Your task to perform on an android device: Show me popular games on the Play Store Image 0: 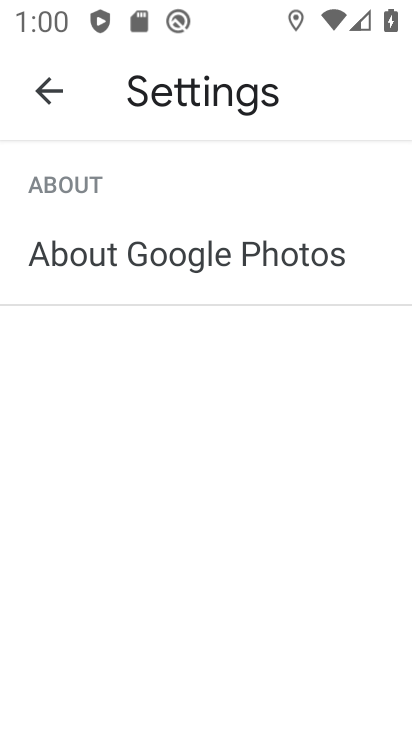
Step 0: press home button
Your task to perform on an android device: Show me popular games on the Play Store Image 1: 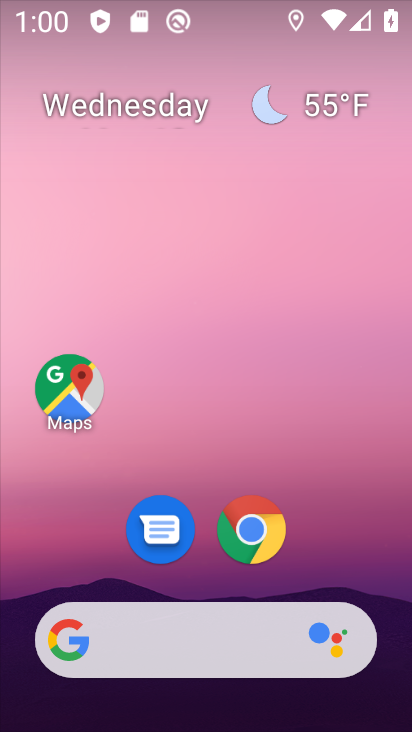
Step 1: drag from (212, 719) to (206, 155)
Your task to perform on an android device: Show me popular games on the Play Store Image 2: 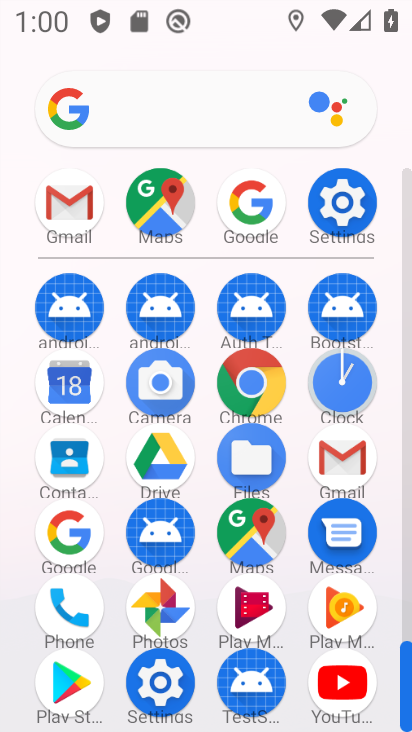
Step 2: drag from (208, 641) to (213, 264)
Your task to perform on an android device: Show me popular games on the Play Store Image 3: 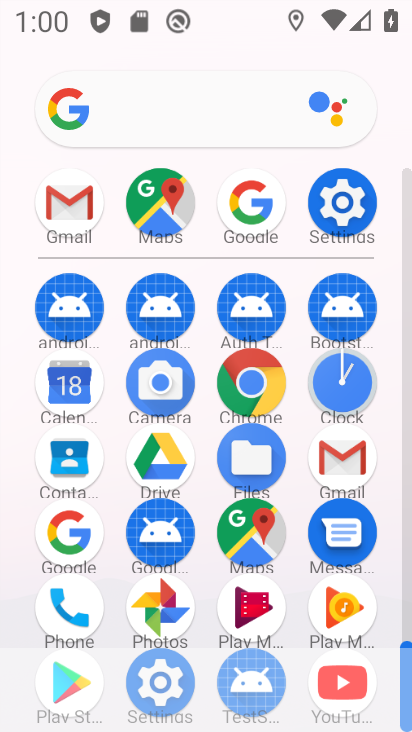
Step 3: click (69, 678)
Your task to perform on an android device: Show me popular games on the Play Store Image 4: 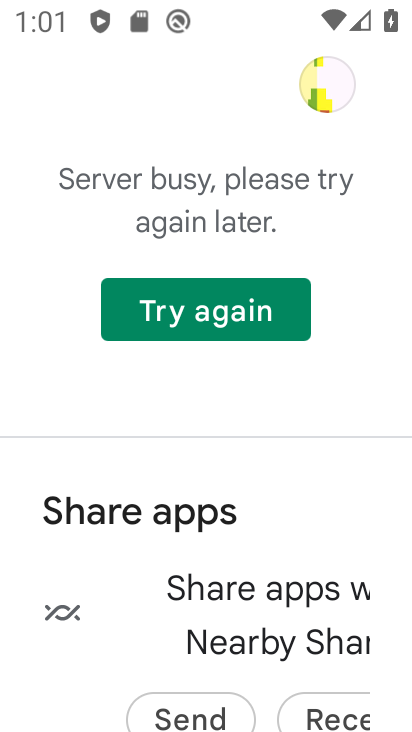
Step 4: click (211, 310)
Your task to perform on an android device: Show me popular games on the Play Store Image 5: 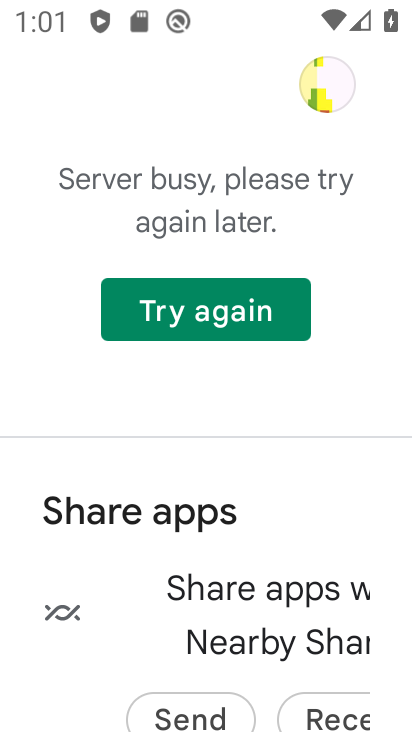
Step 5: task complete